Your task to perform on an android device: Go to calendar. Show me events next week Image 0: 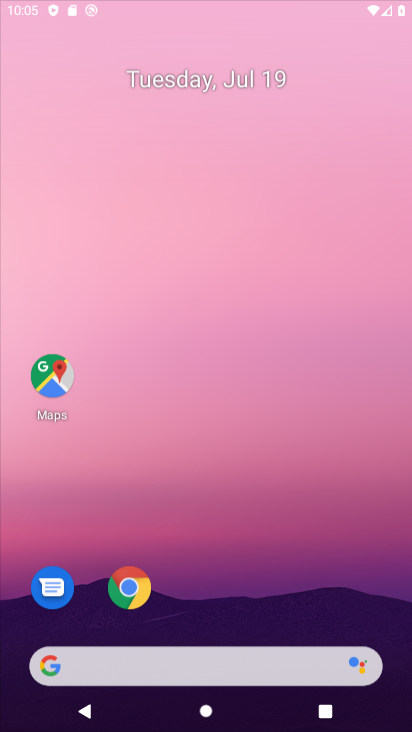
Step 0: press home button
Your task to perform on an android device: Go to calendar. Show me events next week Image 1: 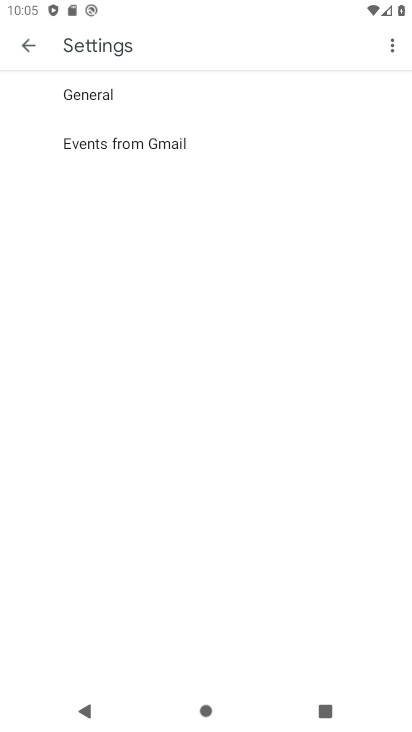
Step 1: drag from (376, 641) to (165, 40)
Your task to perform on an android device: Go to calendar. Show me events next week Image 2: 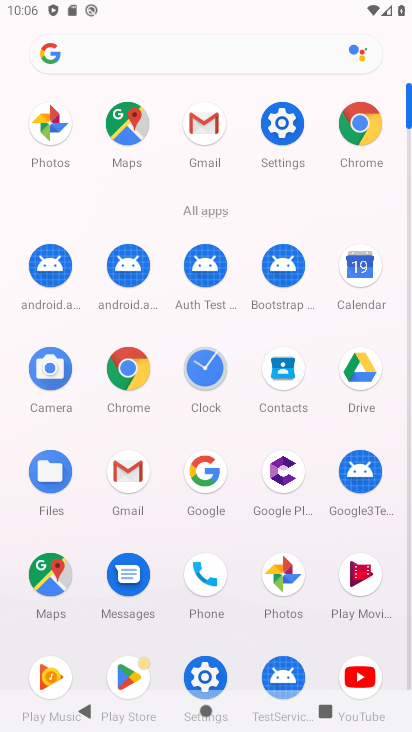
Step 2: click (359, 272)
Your task to perform on an android device: Go to calendar. Show me events next week Image 3: 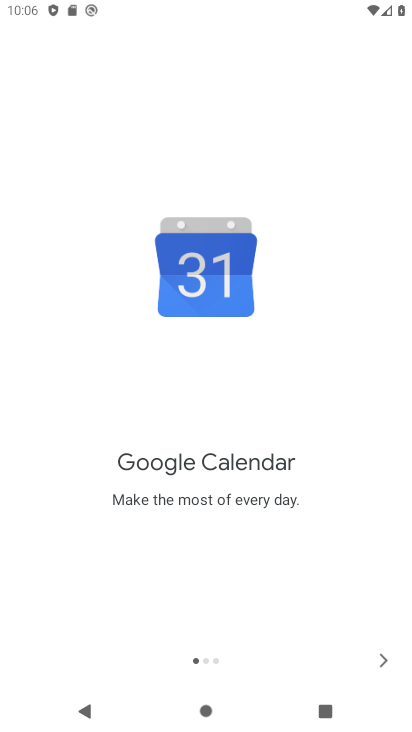
Step 3: click (387, 665)
Your task to perform on an android device: Go to calendar. Show me events next week Image 4: 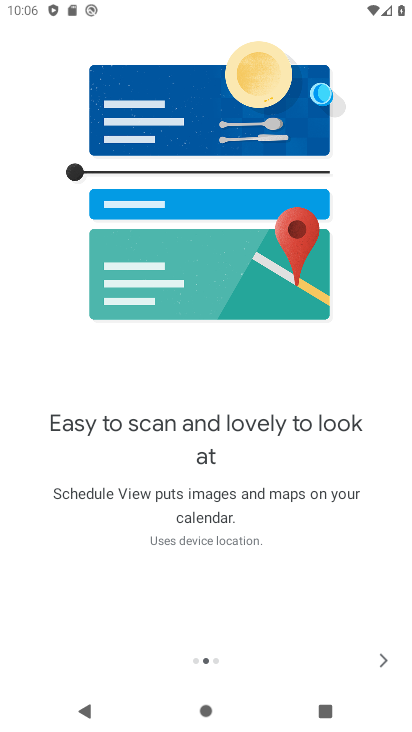
Step 4: click (387, 663)
Your task to perform on an android device: Go to calendar. Show me events next week Image 5: 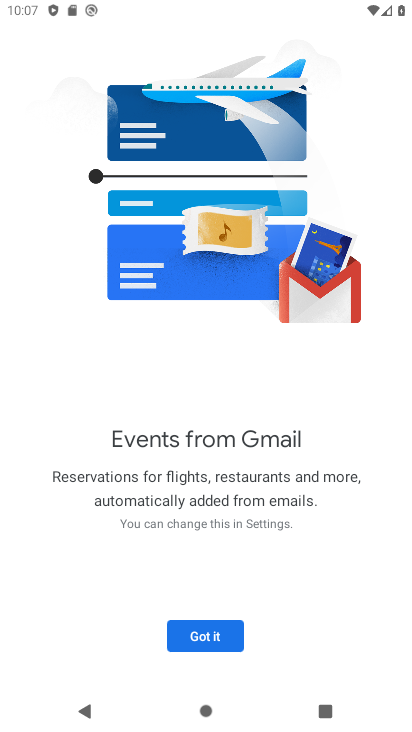
Step 5: click (206, 638)
Your task to perform on an android device: Go to calendar. Show me events next week Image 6: 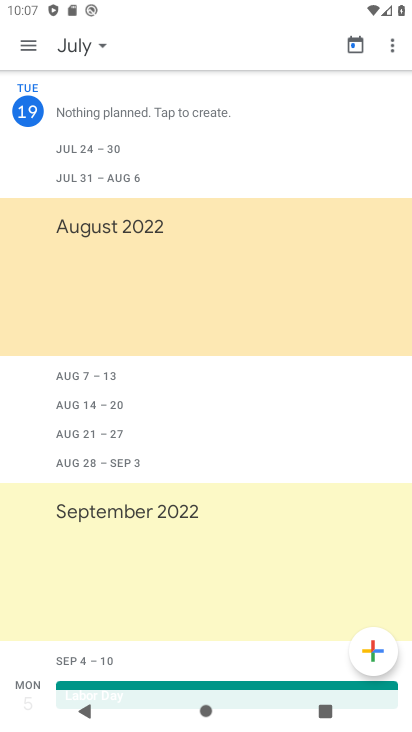
Step 6: task complete